Your task to perform on an android device: make emails show in primary in the gmail app Image 0: 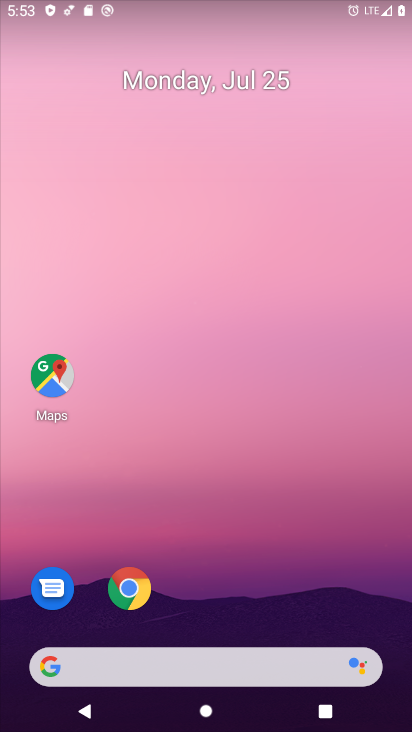
Step 0: drag from (196, 668) to (199, 101)
Your task to perform on an android device: make emails show in primary in the gmail app Image 1: 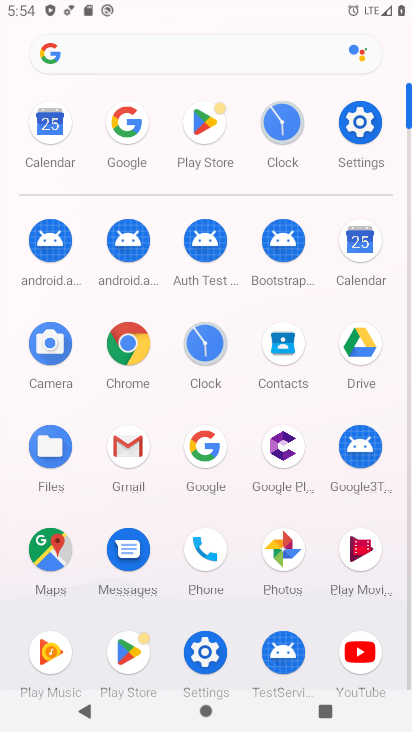
Step 1: click (127, 442)
Your task to perform on an android device: make emails show in primary in the gmail app Image 2: 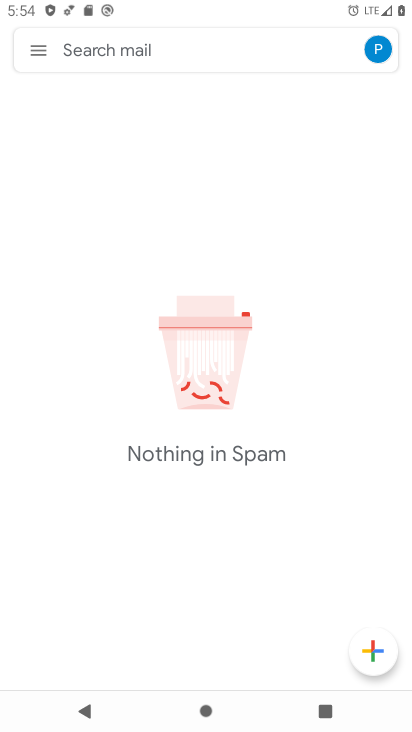
Step 2: click (38, 49)
Your task to perform on an android device: make emails show in primary in the gmail app Image 3: 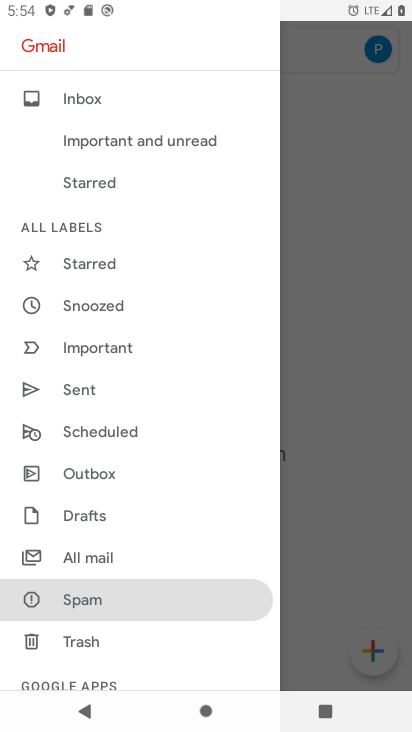
Step 3: drag from (88, 417) to (215, 87)
Your task to perform on an android device: make emails show in primary in the gmail app Image 4: 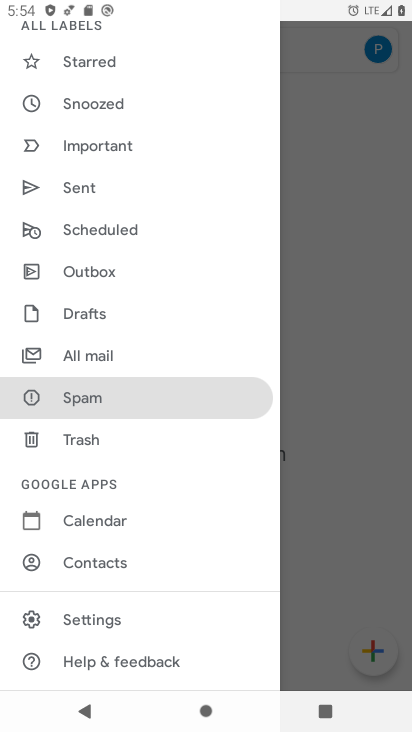
Step 4: click (83, 622)
Your task to perform on an android device: make emails show in primary in the gmail app Image 5: 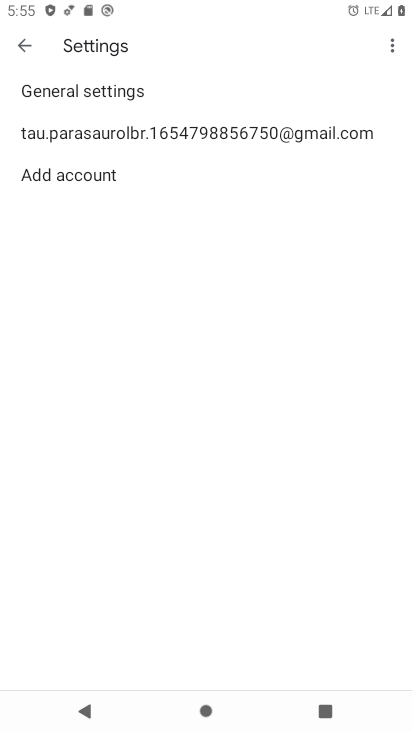
Step 5: click (205, 130)
Your task to perform on an android device: make emails show in primary in the gmail app Image 6: 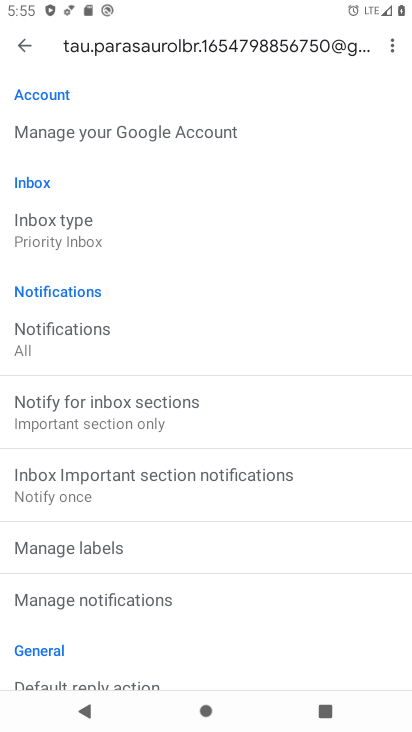
Step 6: click (87, 243)
Your task to perform on an android device: make emails show in primary in the gmail app Image 7: 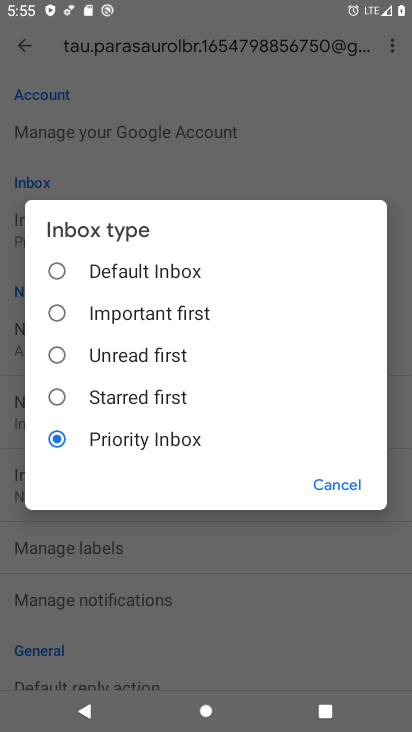
Step 7: click (56, 268)
Your task to perform on an android device: make emails show in primary in the gmail app Image 8: 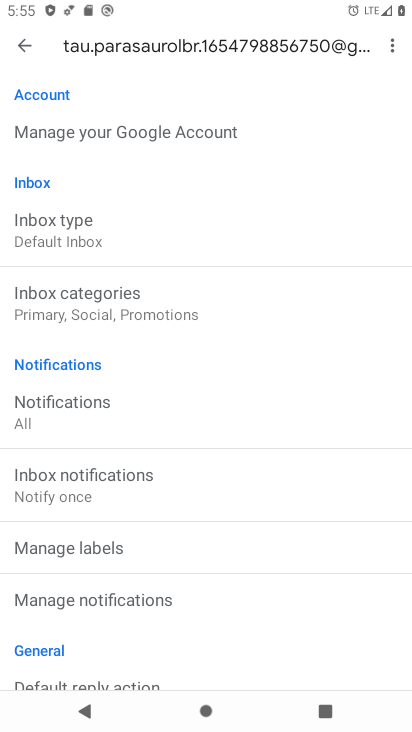
Step 8: click (75, 316)
Your task to perform on an android device: make emails show in primary in the gmail app Image 9: 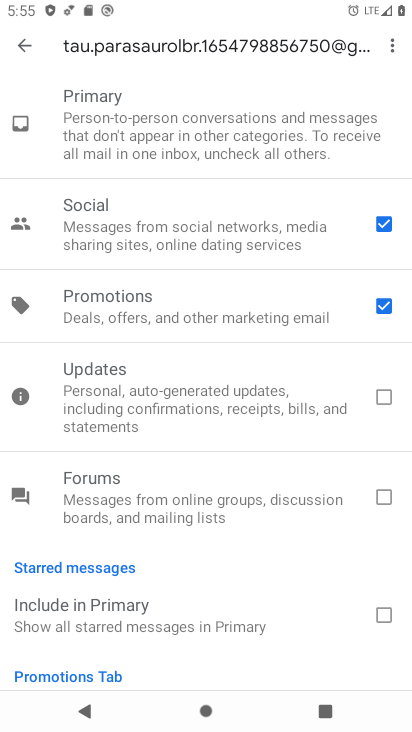
Step 9: click (388, 225)
Your task to perform on an android device: make emails show in primary in the gmail app Image 10: 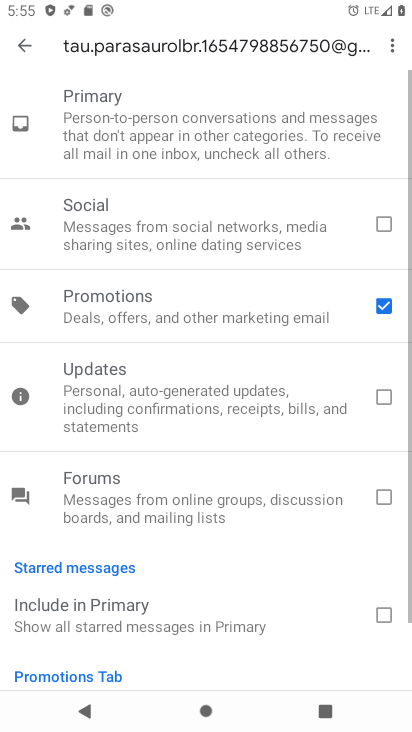
Step 10: click (390, 302)
Your task to perform on an android device: make emails show in primary in the gmail app Image 11: 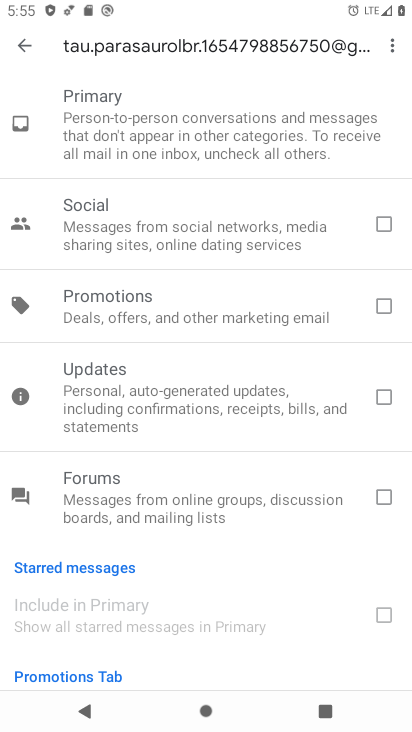
Step 11: task complete